Your task to perform on an android device: Google the capital of Venezuela Image 0: 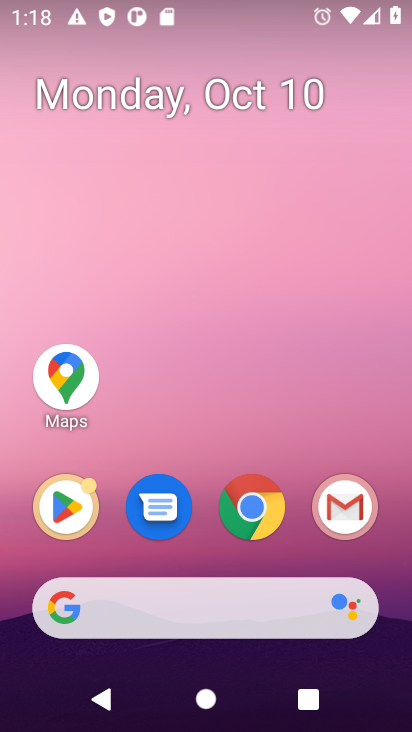
Step 0: press home button
Your task to perform on an android device: Google the capital of Venezuela Image 1: 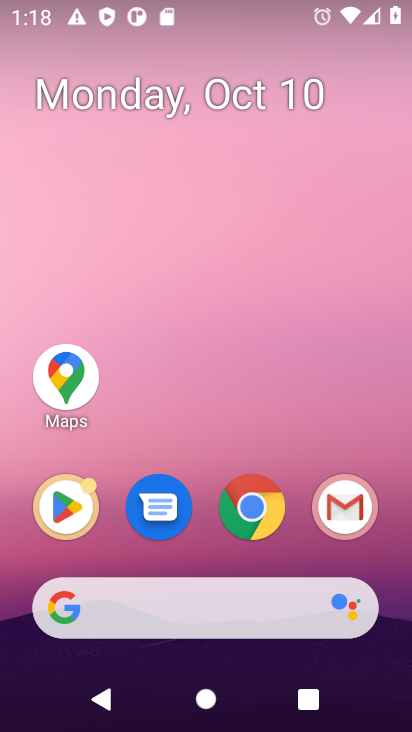
Step 1: click (263, 607)
Your task to perform on an android device: Google the capital of Venezuela Image 2: 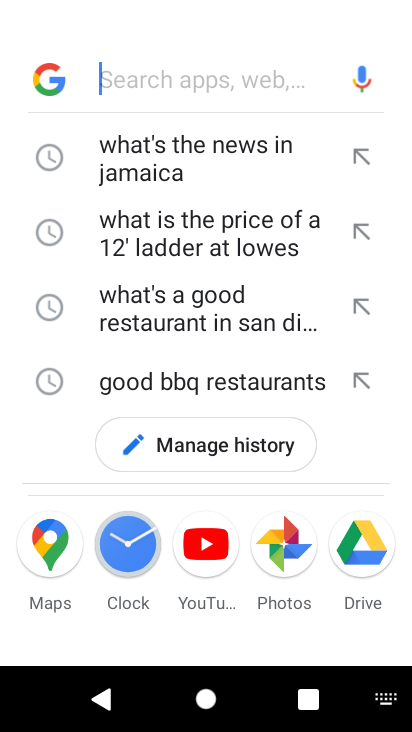
Step 2: press enter
Your task to perform on an android device: Google the capital of Venezuela Image 3: 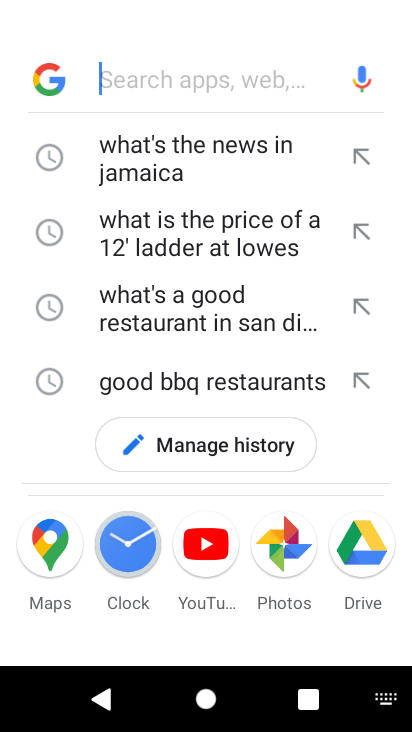
Step 3: type "Google the capital of Venezuela"
Your task to perform on an android device: Google the capital of Venezuela Image 4: 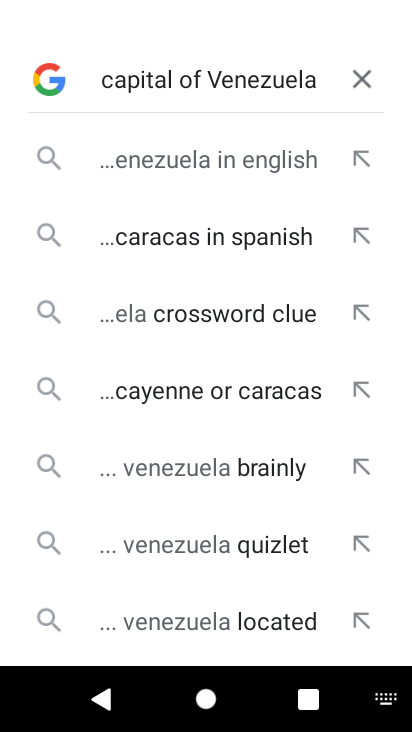
Step 4: press enter
Your task to perform on an android device: Google the capital of Venezuela Image 5: 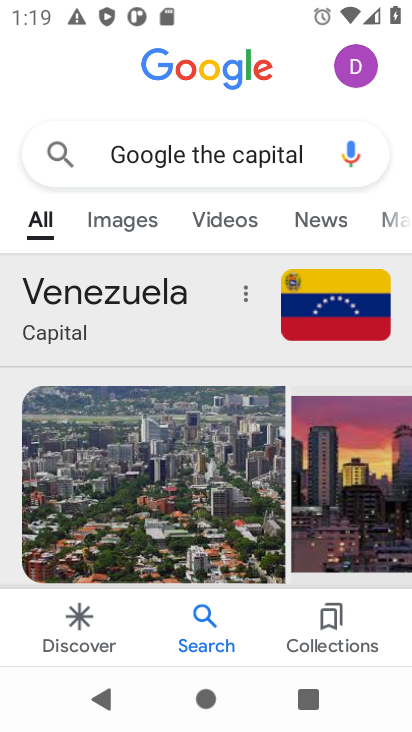
Step 5: task complete